Your task to perform on an android device: change text size in settings app Image 0: 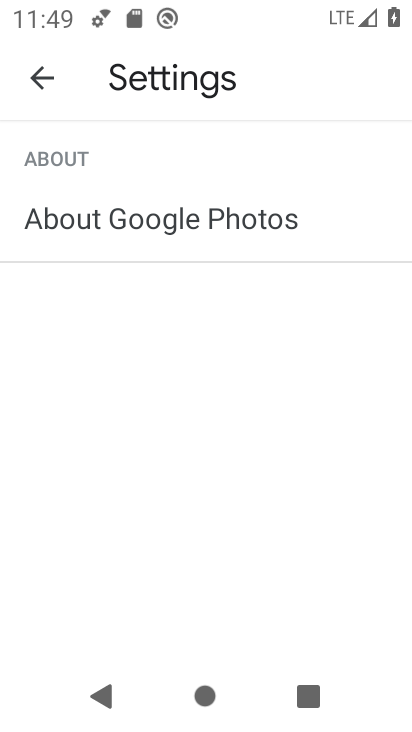
Step 0: press home button
Your task to perform on an android device: change text size in settings app Image 1: 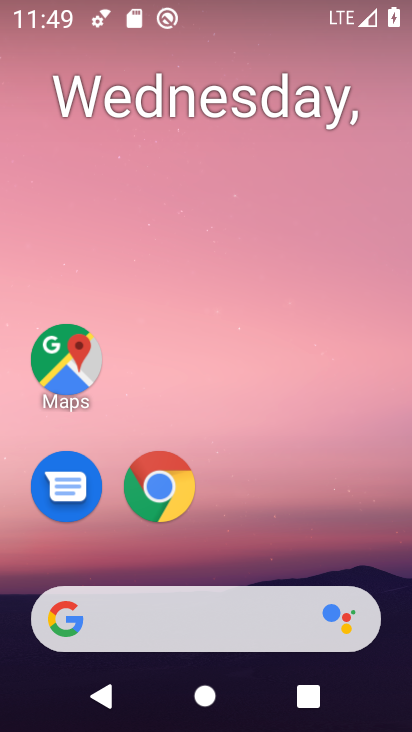
Step 1: drag from (350, 551) to (363, 201)
Your task to perform on an android device: change text size in settings app Image 2: 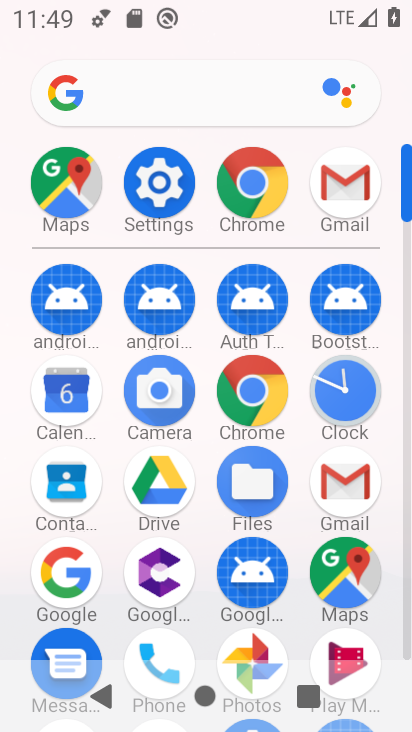
Step 2: click (165, 178)
Your task to perform on an android device: change text size in settings app Image 3: 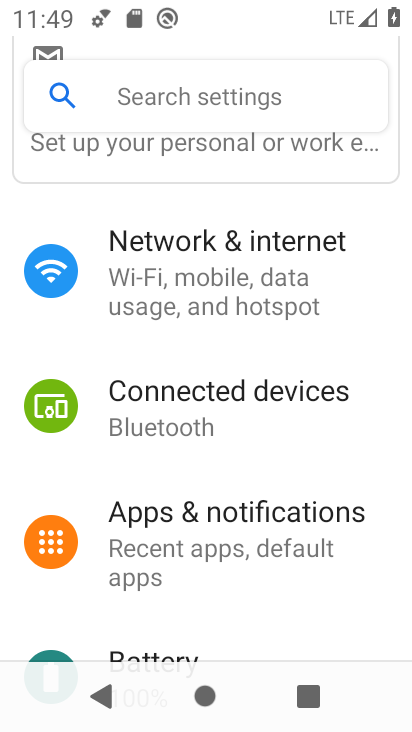
Step 3: drag from (395, 531) to (390, 492)
Your task to perform on an android device: change text size in settings app Image 4: 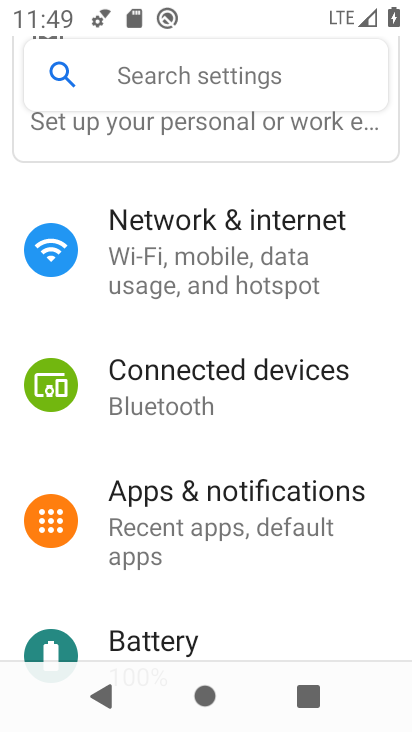
Step 4: drag from (354, 602) to (353, 427)
Your task to perform on an android device: change text size in settings app Image 5: 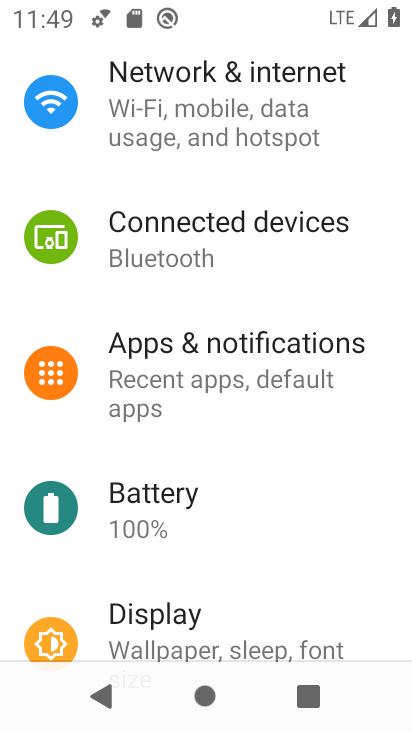
Step 5: drag from (351, 549) to (345, 395)
Your task to perform on an android device: change text size in settings app Image 6: 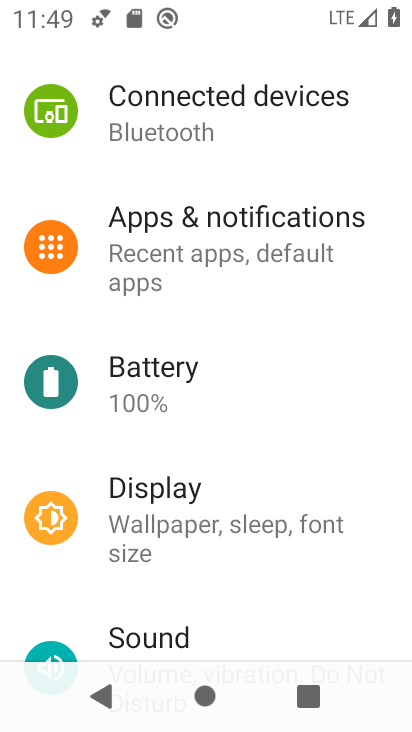
Step 6: drag from (362, 605) to (364, 426)
Your task to perform on an android device: change text size in settings app Image 7: 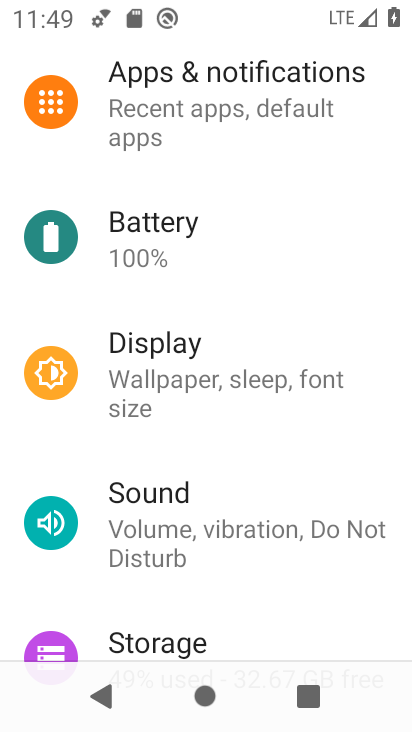
Step 7: click (286, 419)
Your task to perform on an android device: change text size in settings app Image 8: 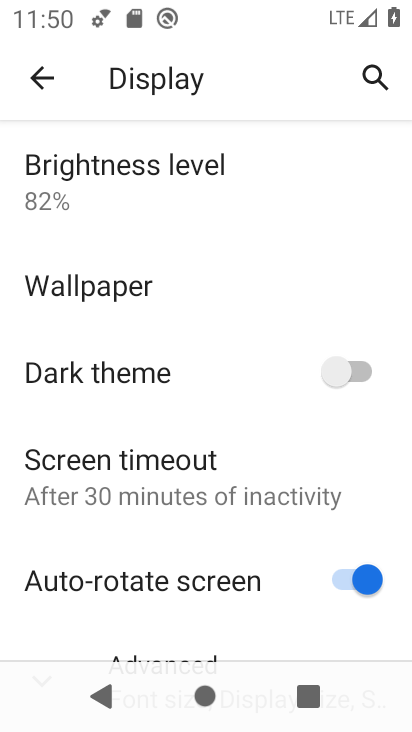
Step 8: drag from (272, 571) to (252, 332)
Your task to perform on an android device: change text size in settings app Image 9: 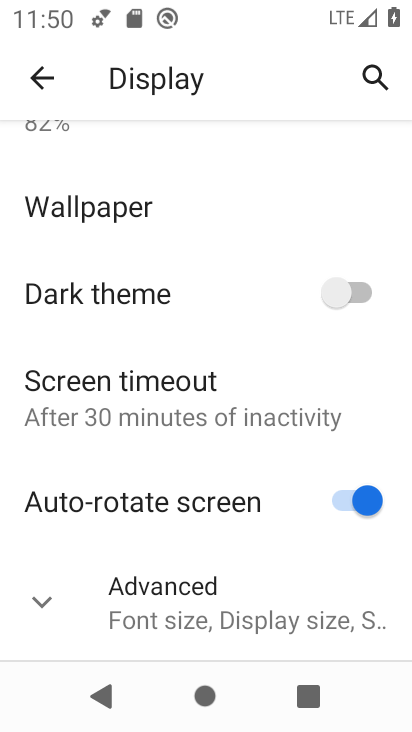
Step 9: drag from (266, 543) to (260, 290)
Your task to perform on an android device: change text size in settings app Image 10: 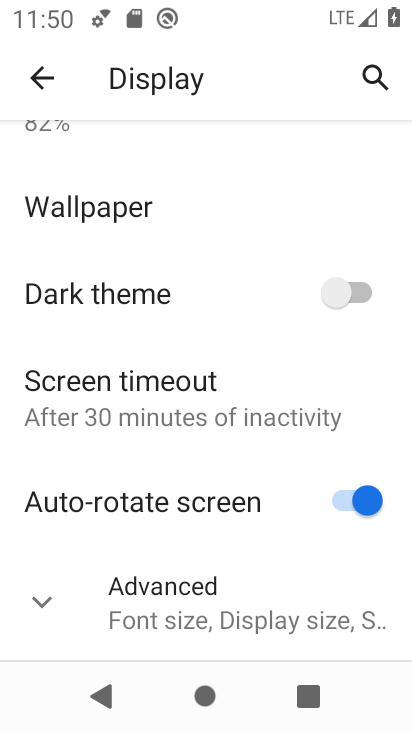
Step 10: click (193, 627)
Your task to perform on an android device: change text size in settings app Image 11: 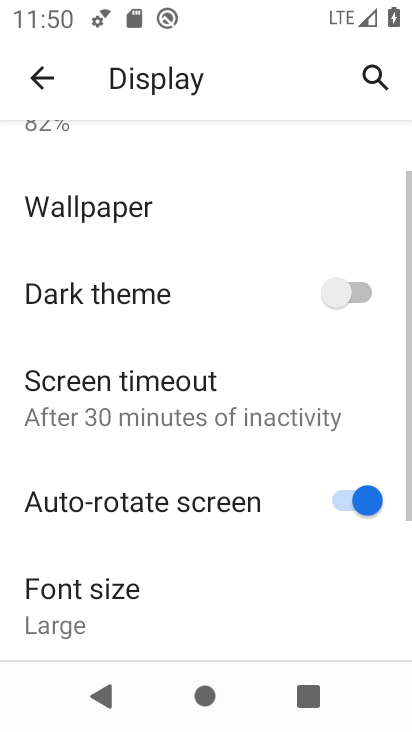
Step 11: drag from (231, 561) to (226, 386)
Your task to perform on an android device: change text size in settings app Image 12: 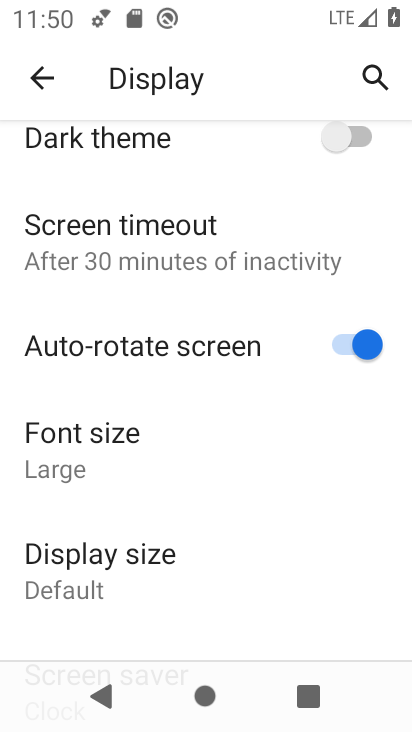
Step 12: click (156, 467)
Your task to perform on an android device: change text size in settings app Image 13: 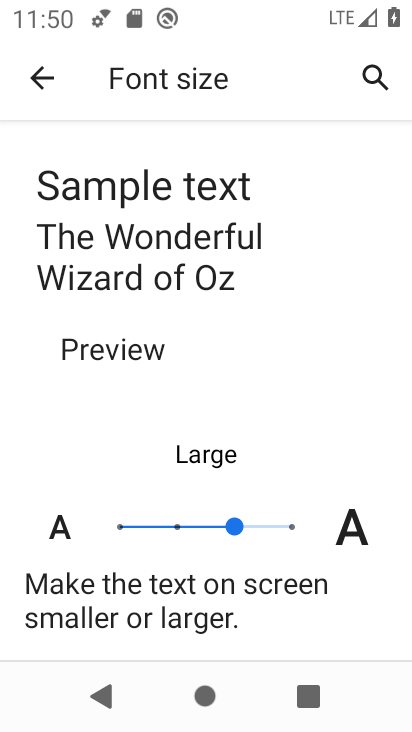
Step 13: click (180, 523)
Your task to perform on an android device: change text size in settings app Image 14: 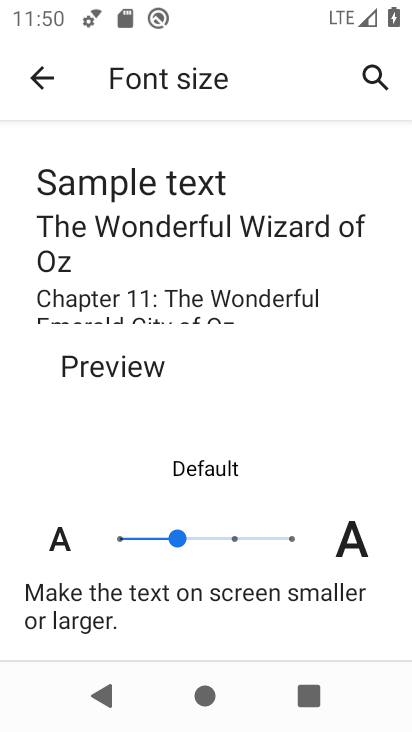
Step 14: task complete